Your task to perform on an android device: Empty the shopping cart on ebay. Image 0: 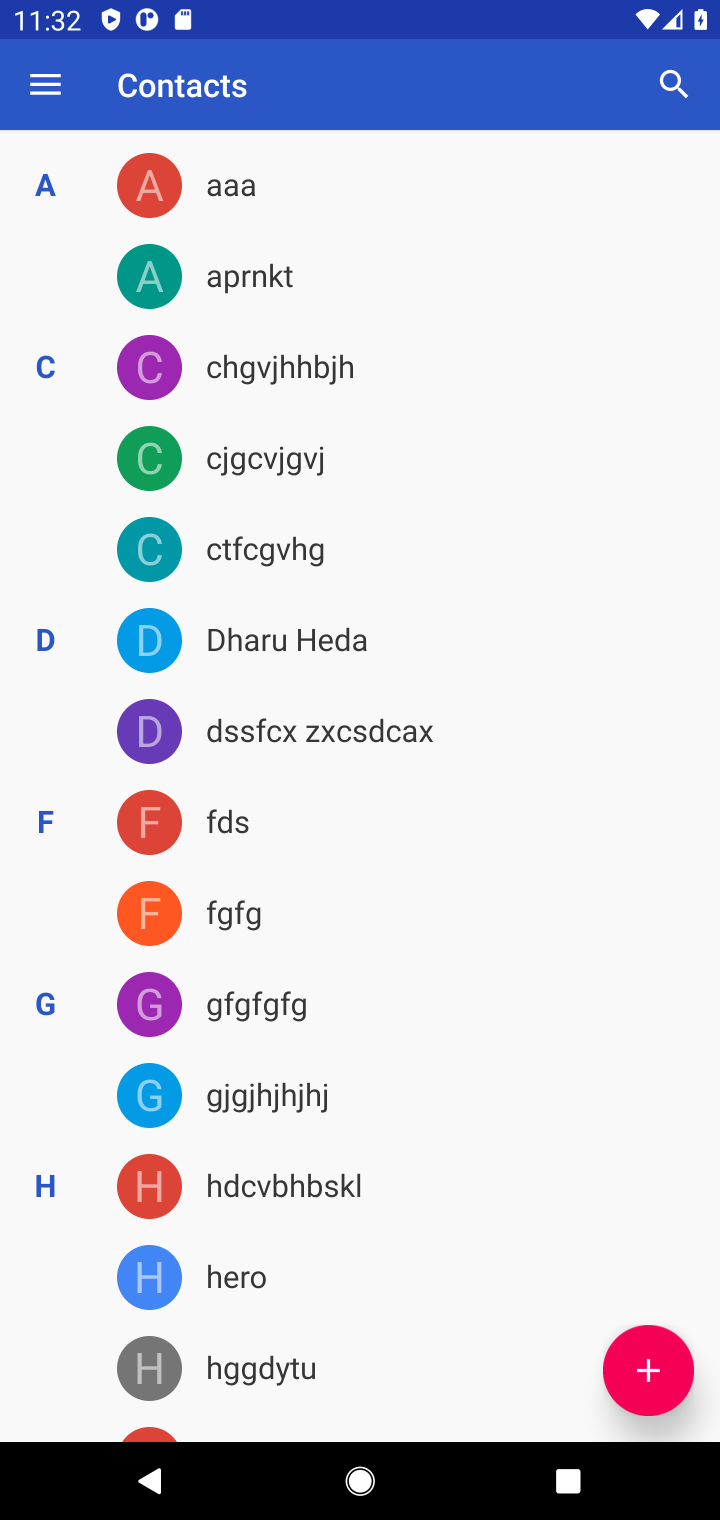
Step 0: press home button
Your task to perform on an android device: Empty the shopping cart on ebay. Image 1: 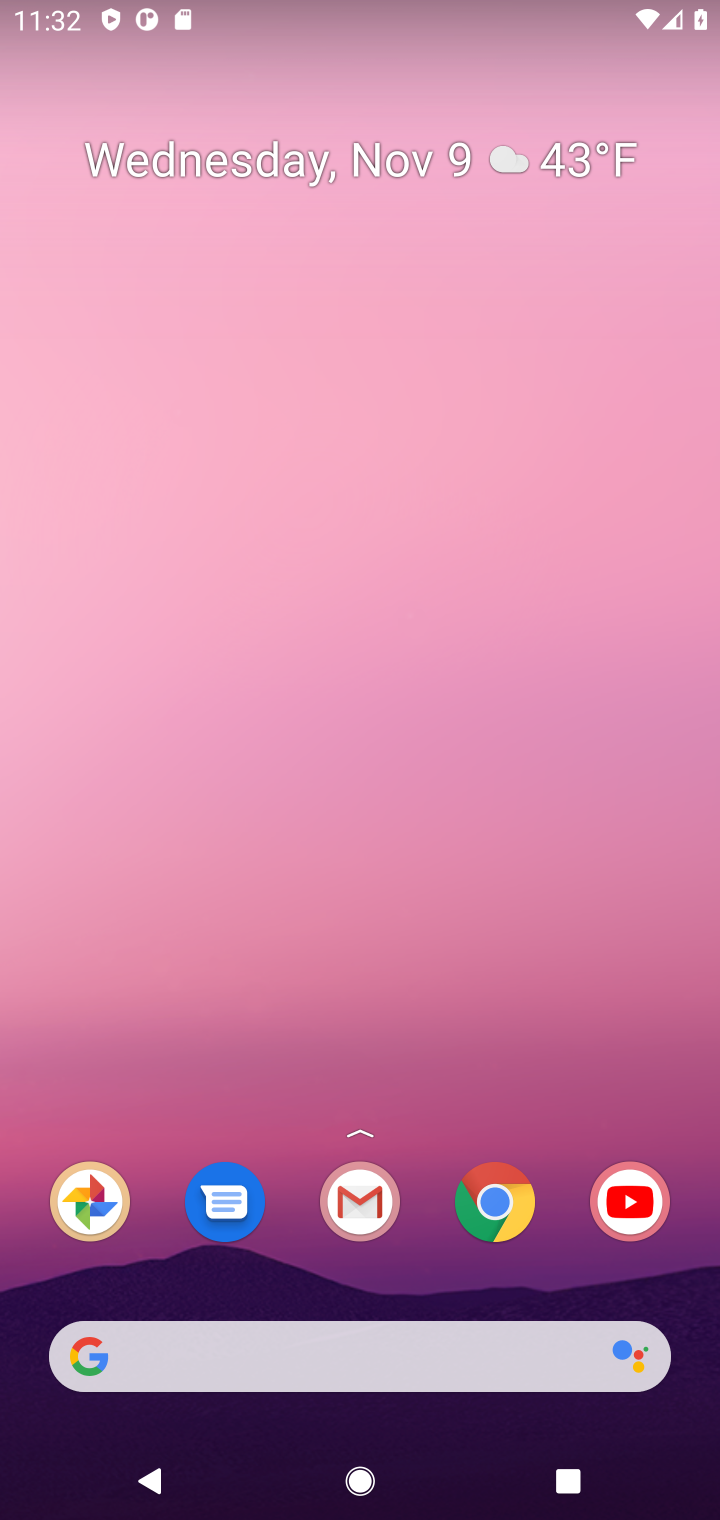
Step 1: click (488, 1184)
Your task to perform on an android device: Empty the shopping cart on ebay. Image 2: 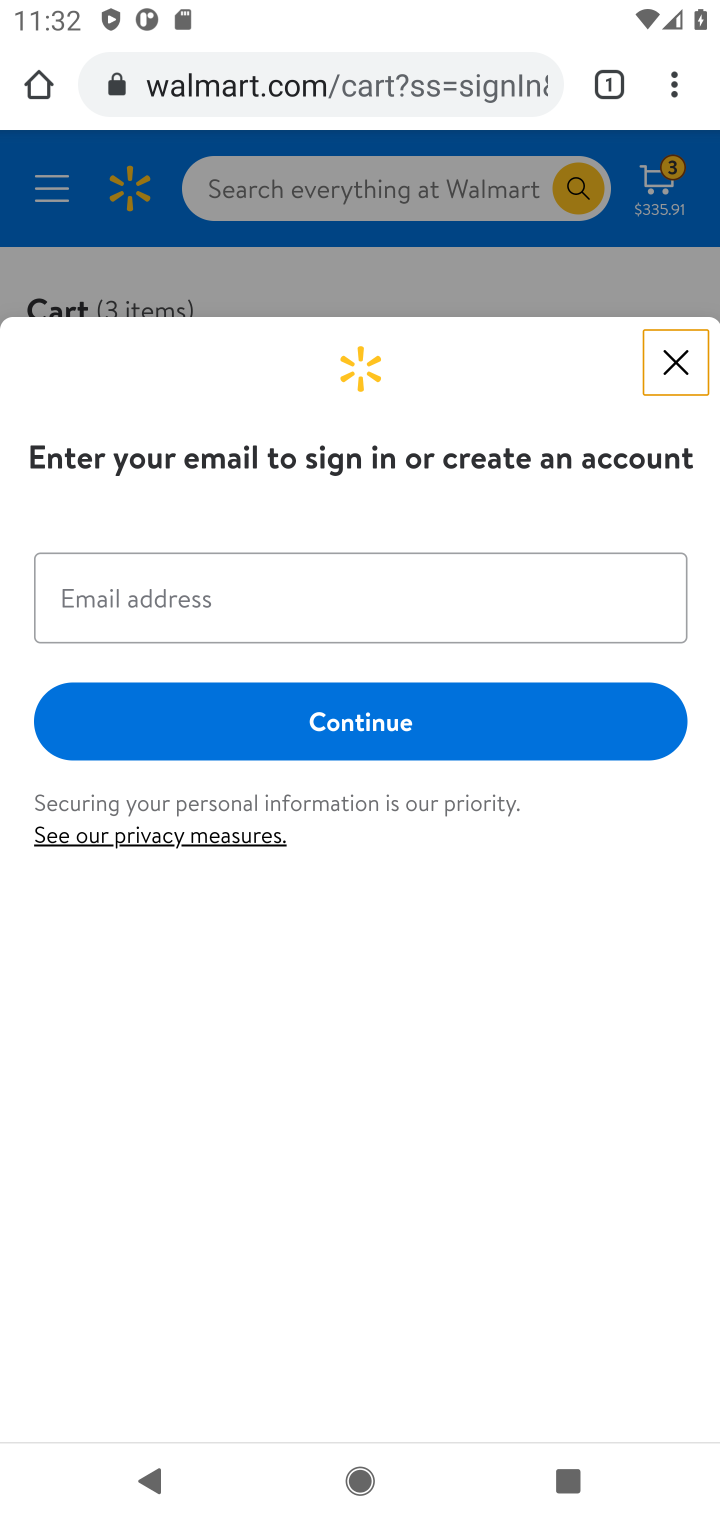
Step 2: click (419, 86)
Your task to perform on an android device: Empty the shopping cart on ebay. Image 3: 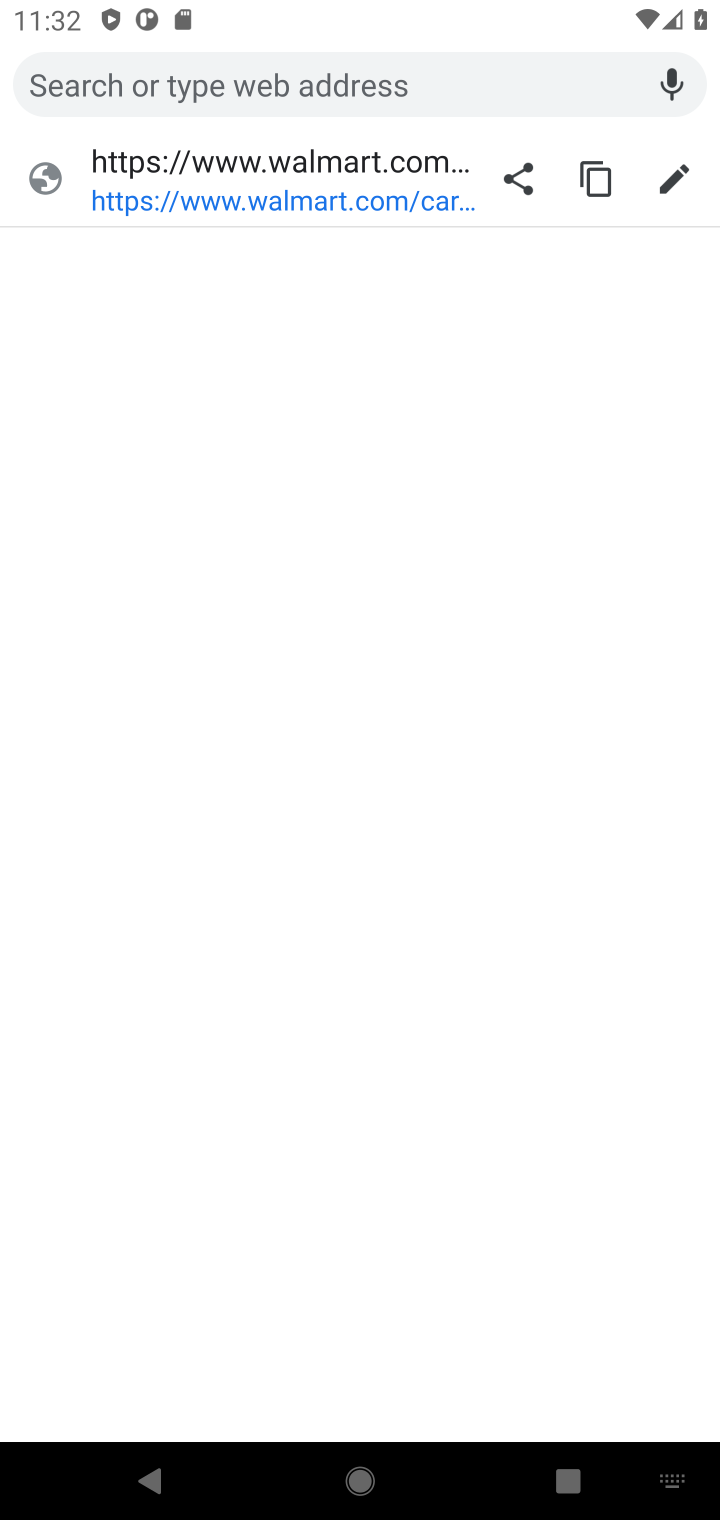
Step 3: type "ebay"
Your task to perform on an android device: Empty the shopping cart on ebay. Image 4: 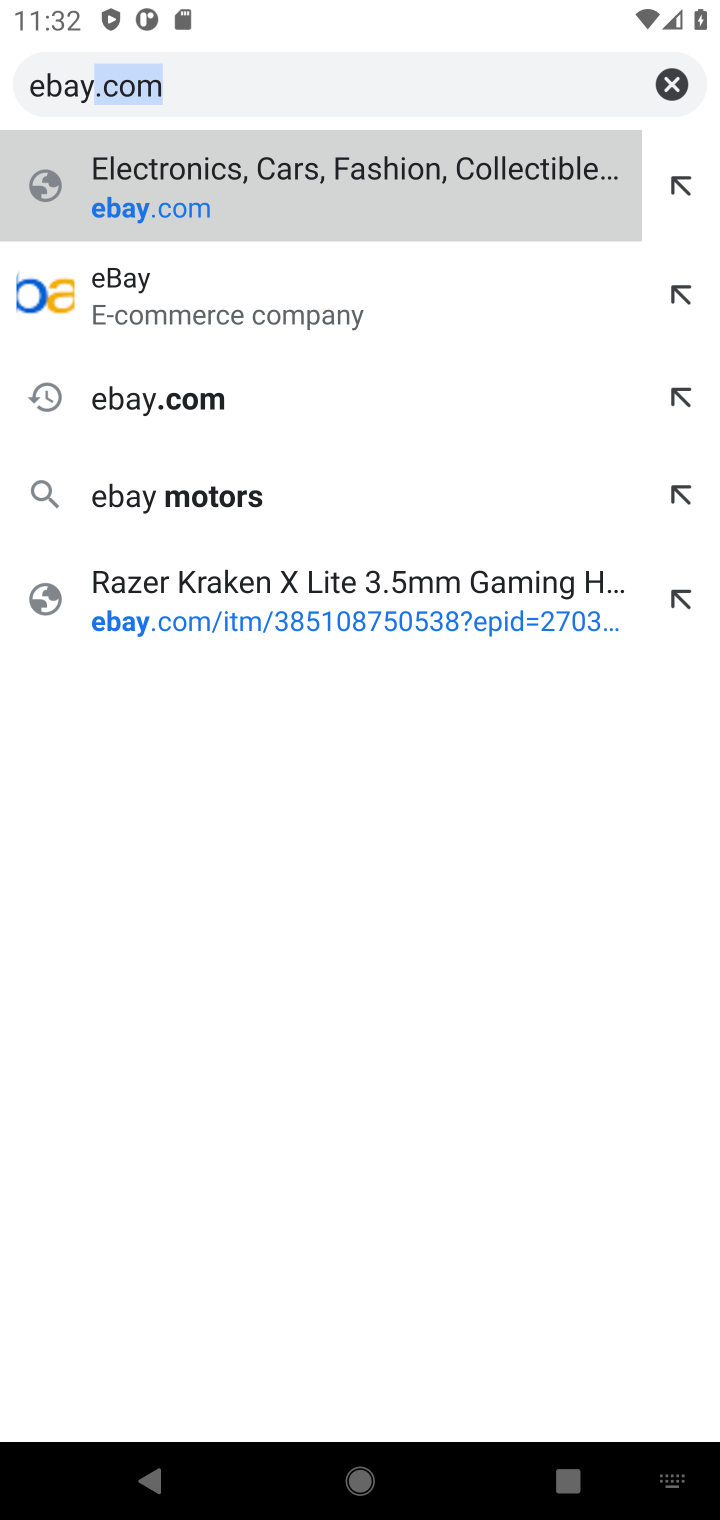
Step 4: press enter
Your task to perform on an android device: Empty the shopping cart on ebay. Image 5: 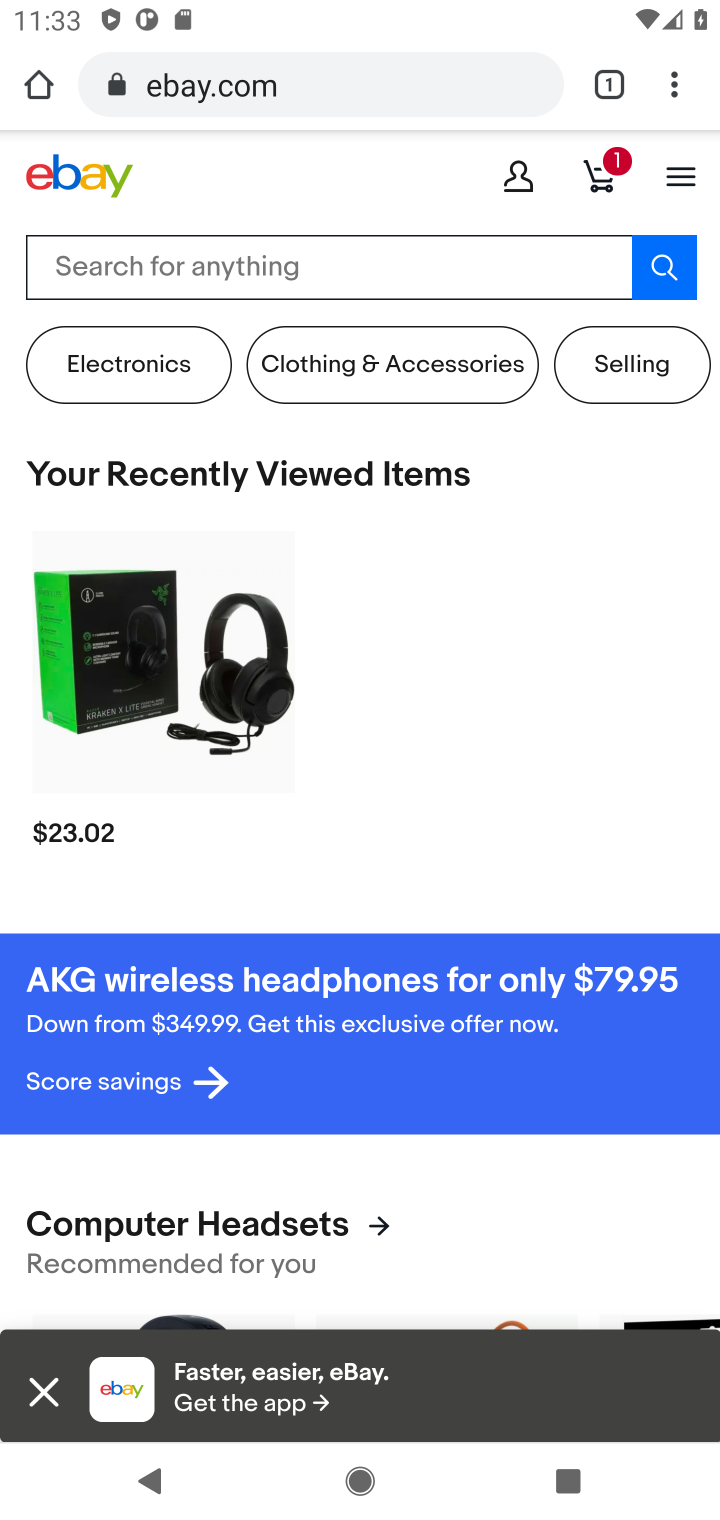
Step 5: click (602, 186)
Your task to perform on an android device: Empty the shopping cart on ebay. Image 6: 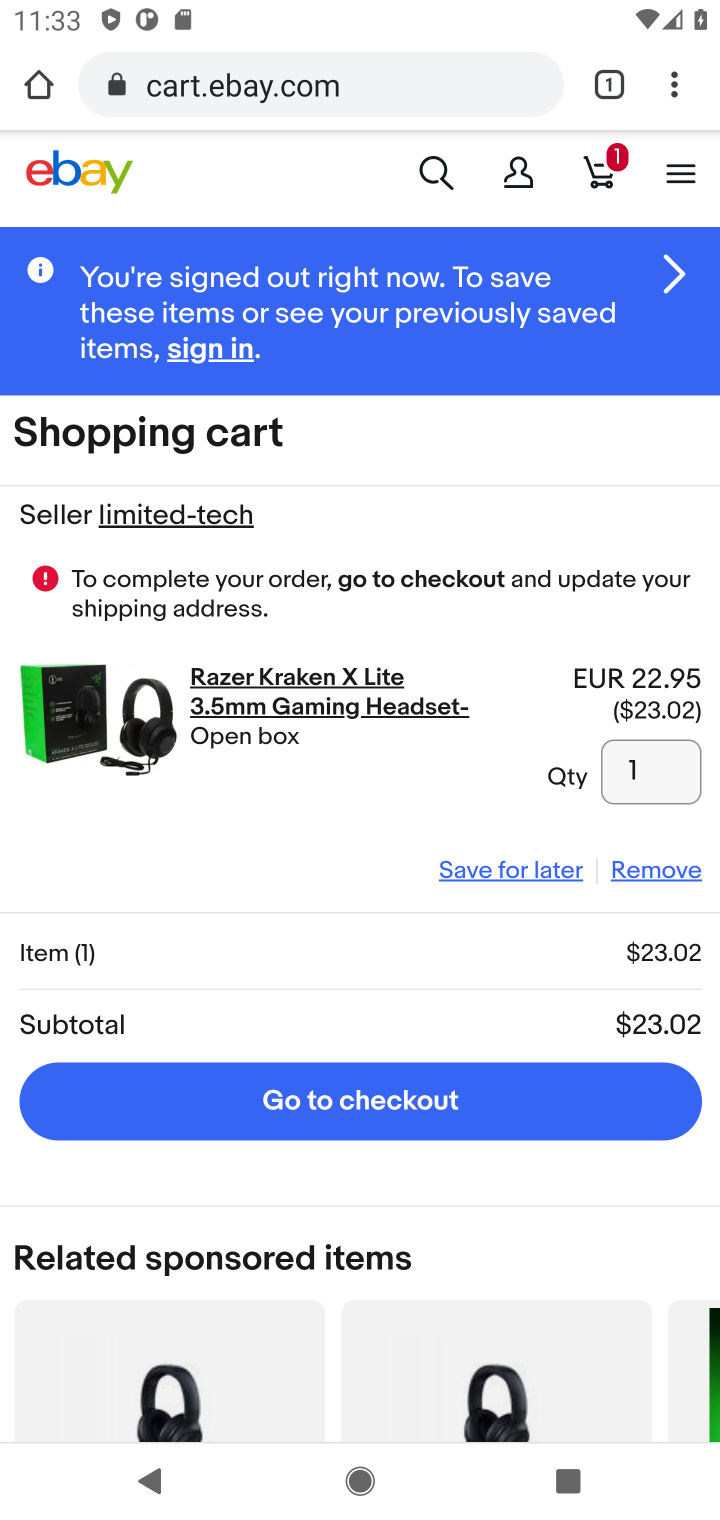
Step 6: click (651, 872)
Your task to perform on an android device: Empty the shopping cart on ebay. Image 7: 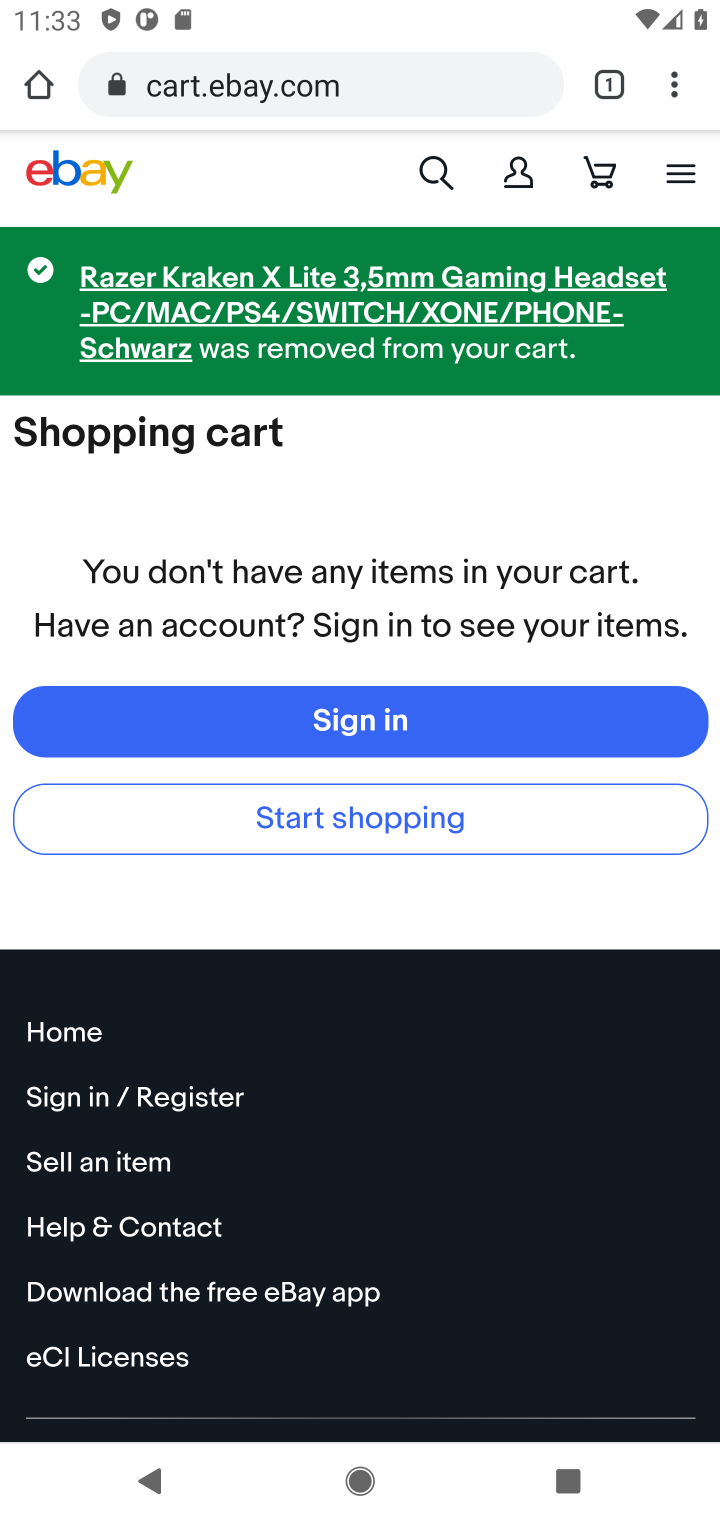
Step 7: task complete